Your task to perform on an android device: Go to settings Image 0: 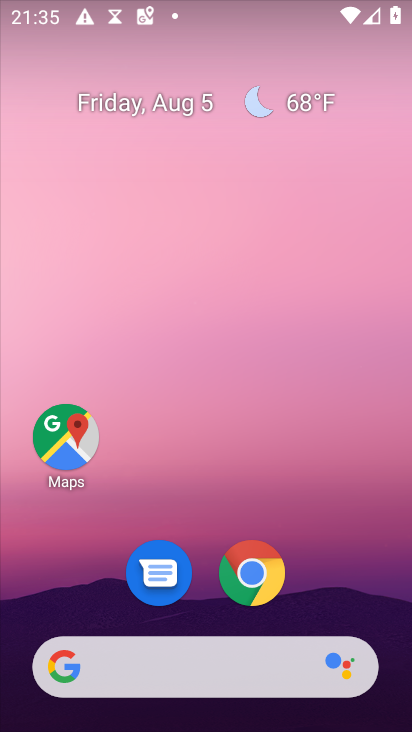
Step 0: drag from (183, 671) to (304, 125)
Your task to perform on an android device: Go to settings Image 1: 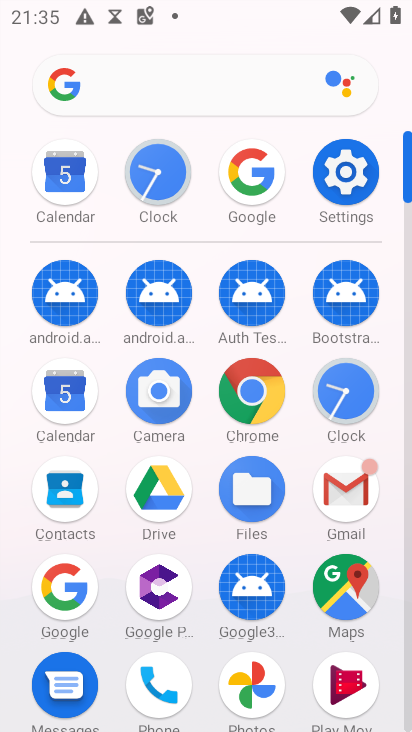
Step 1: click (346, 171)
Your task to perform on an android device: Go to settings Image 2: 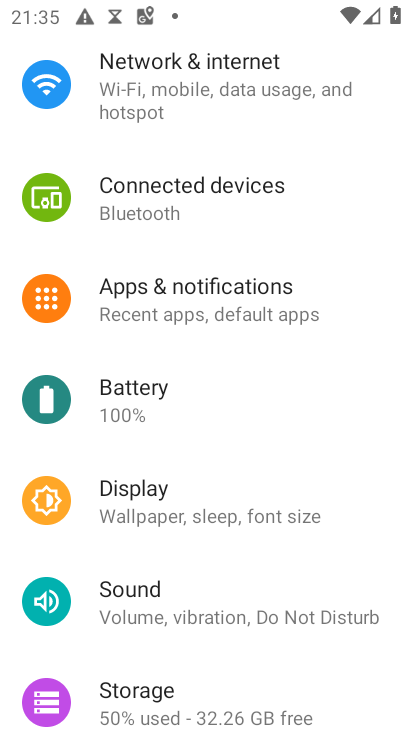
Step 2: task complete